Your task to perform on an android device: turn off notifications settings in the gmail app Image 0: 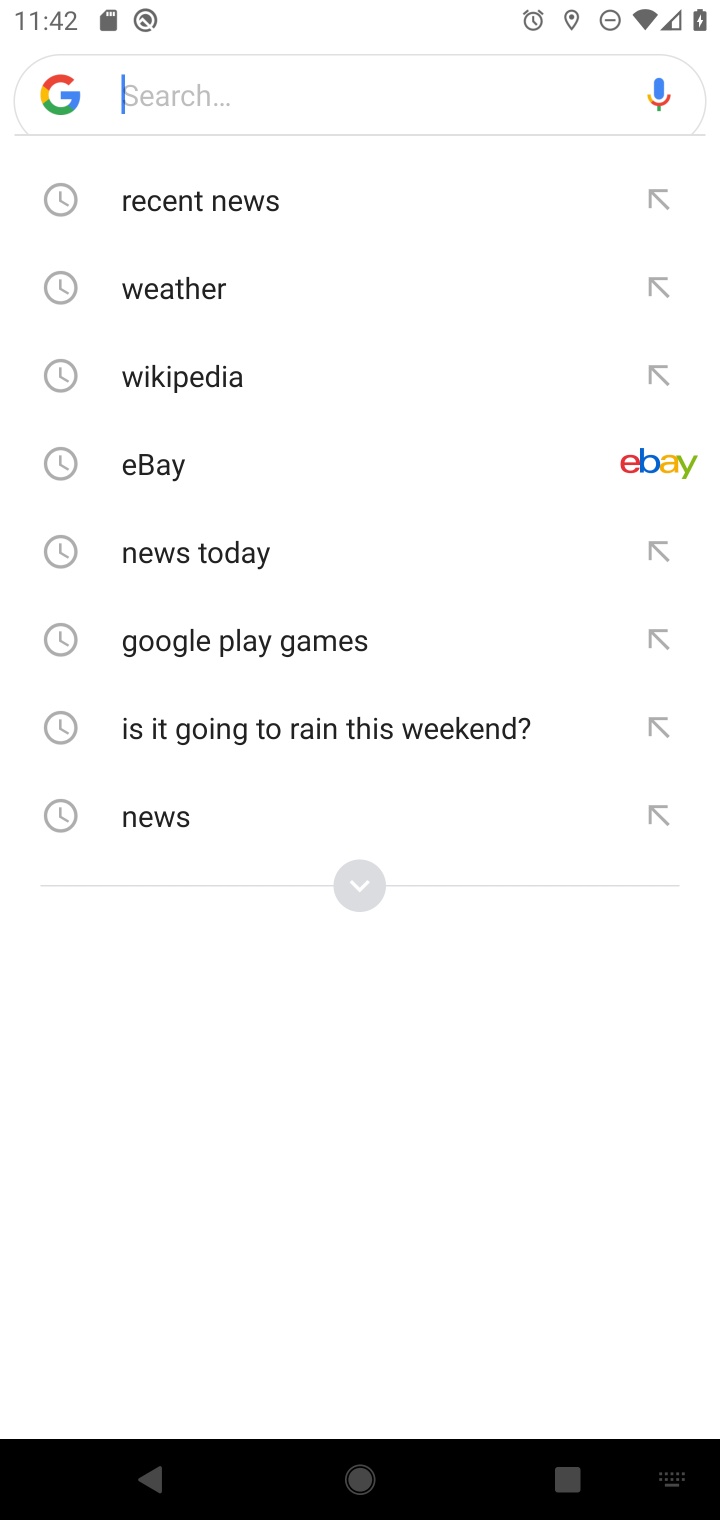
Step 0: press back button
Your task to perform on an android device: turn off notifications settings in the gmail app Image 1: 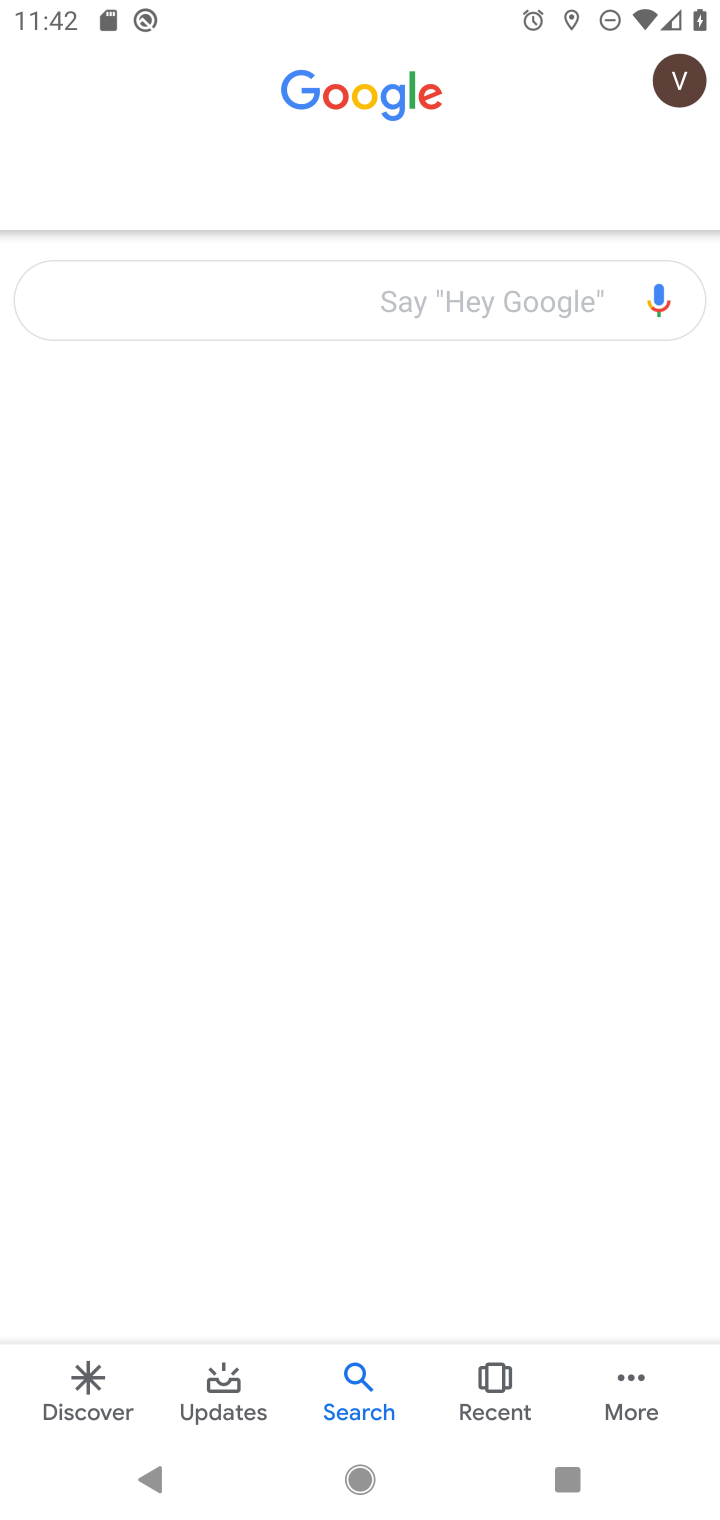
Step 1: press back button
Your task to perform on an android device: turn off notifications settings in the gmail app Image 2: 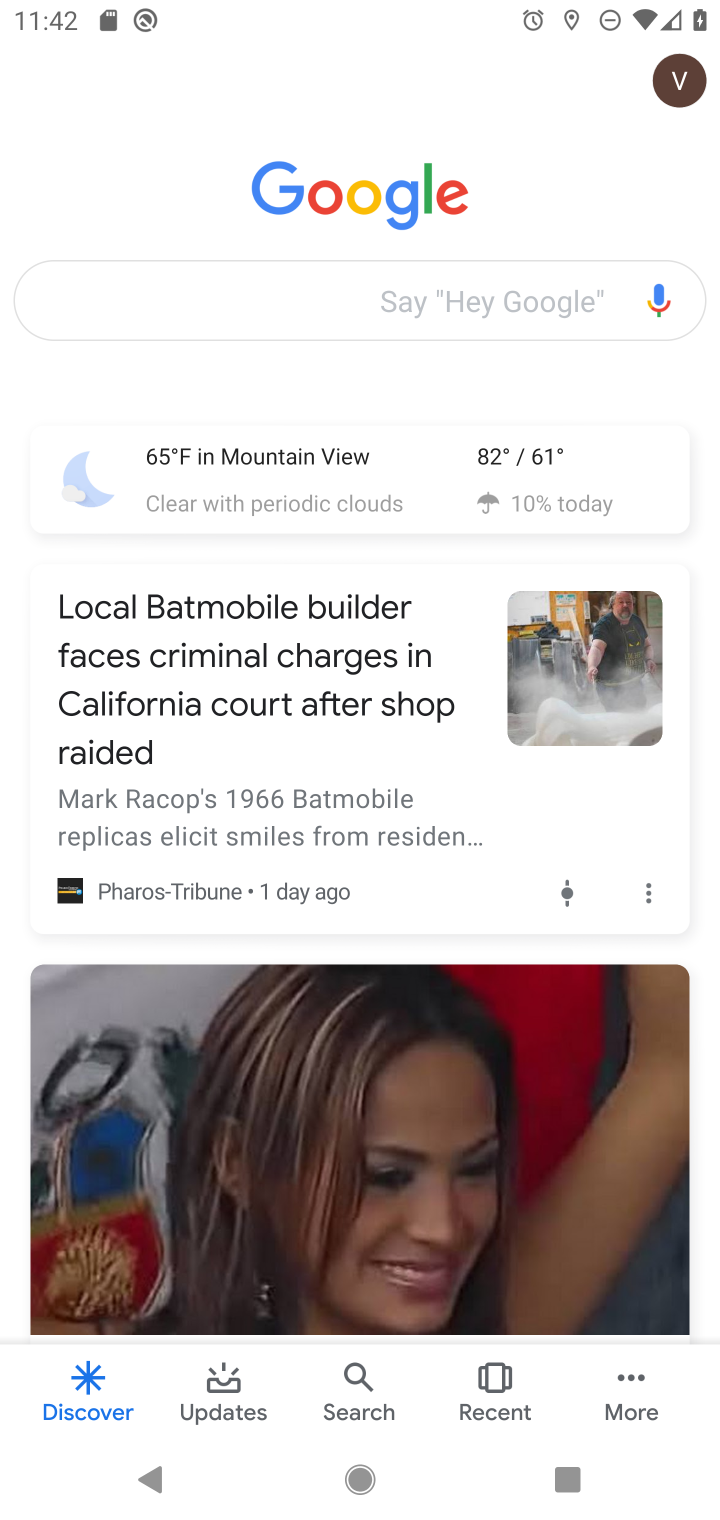
Step 2: press back button
Your task to perform on an android device: turn off notifications settings in the gmail app Image 3: 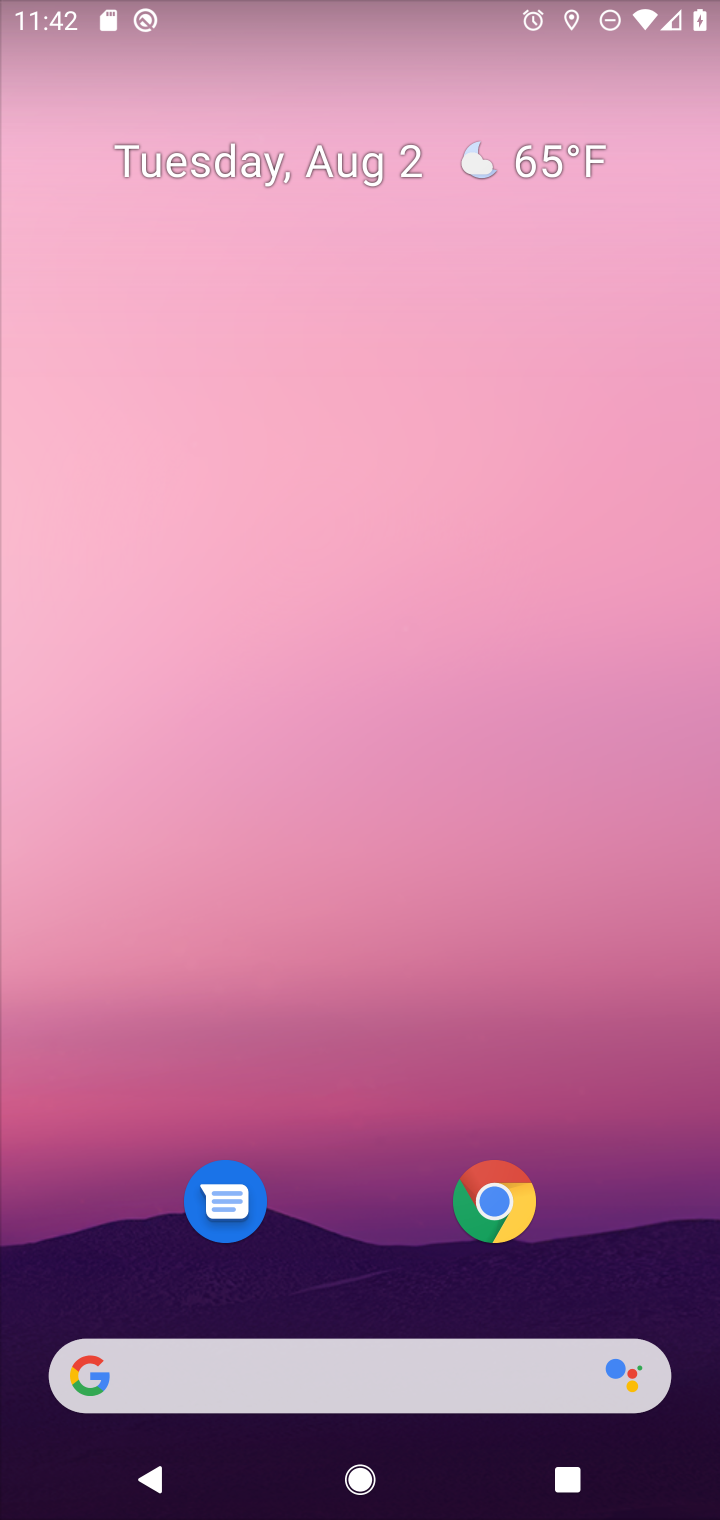
Step 3: drag from (337, 1281) to (360, 81)
Your task to perform on an android device: turn off notifications settings in the gmail app Image 4: 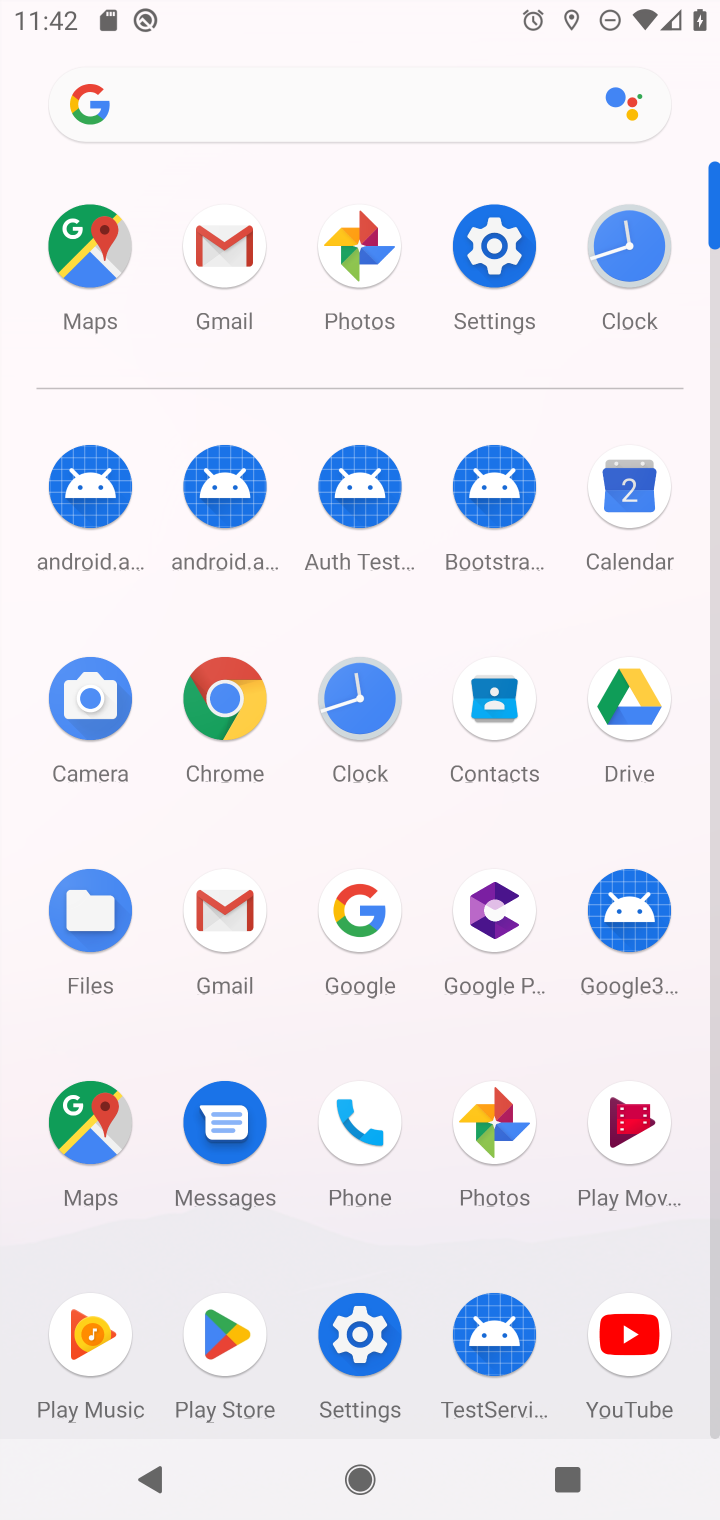
Step 4: click (215, 297)
Your task to perform on an android device: turn off notifications settings in the gmail app Image 5: 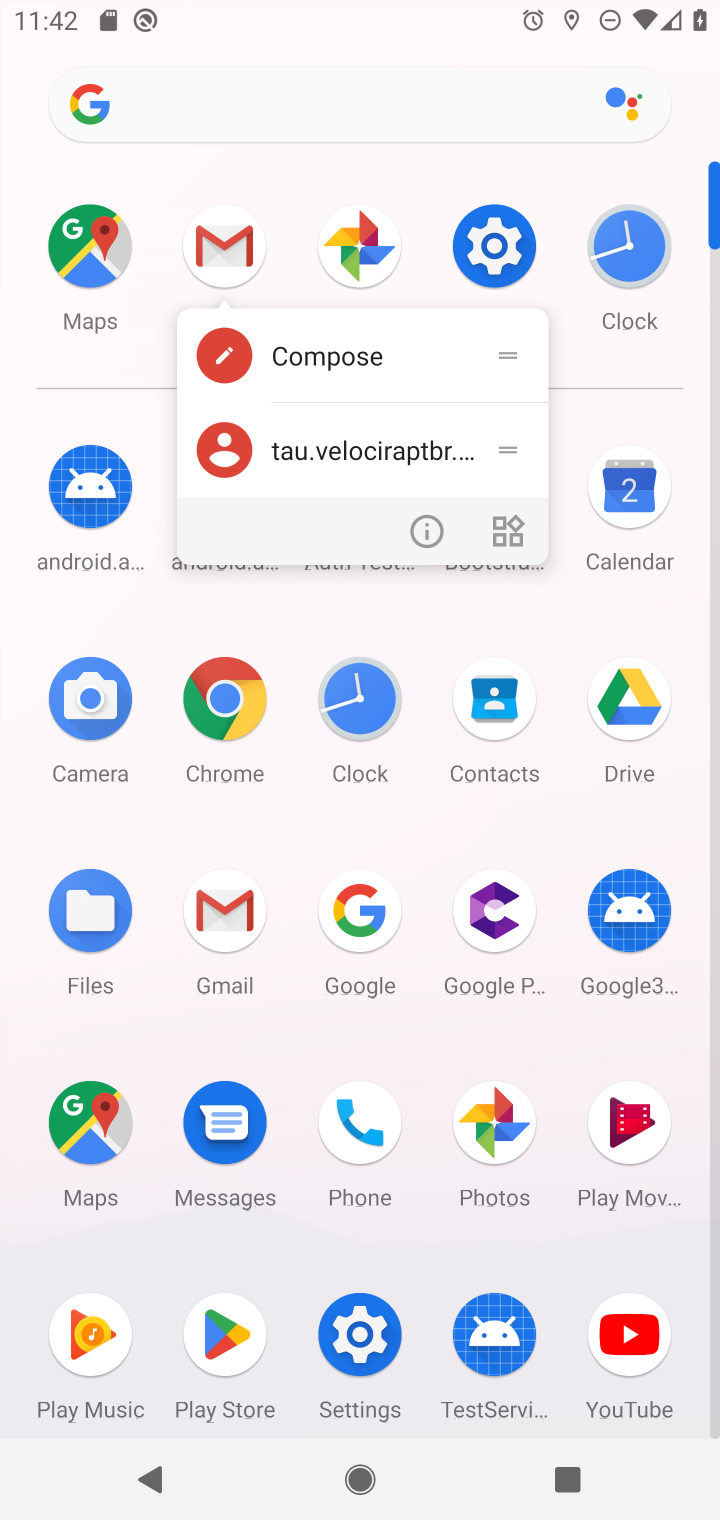
Step 5: click (200, 255)
Your task to perform on an android device: turn off notifications settings in the gmail app Image 6: 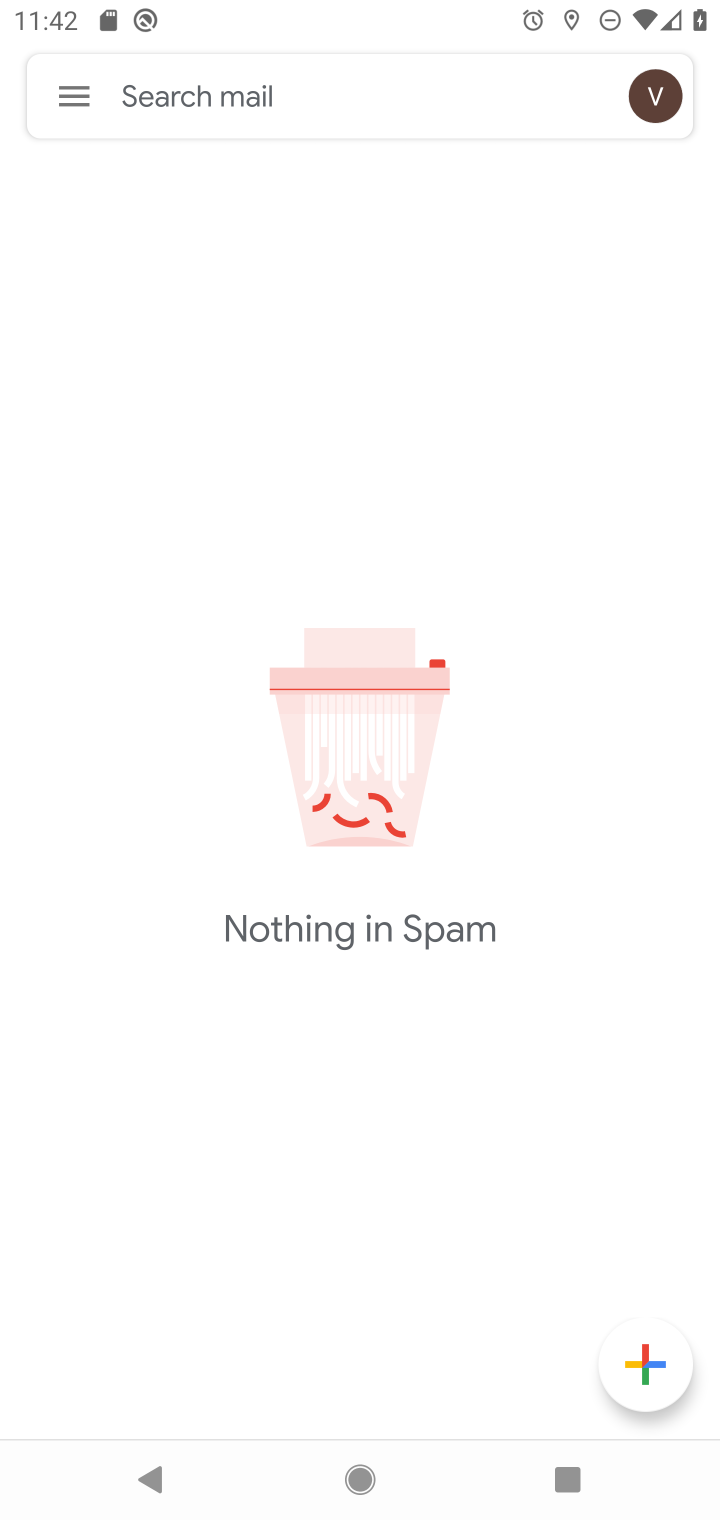
Step 6: click (75, 115)
Your task to perform on an android device: turn off notifications settings in the gmail app Image 7: 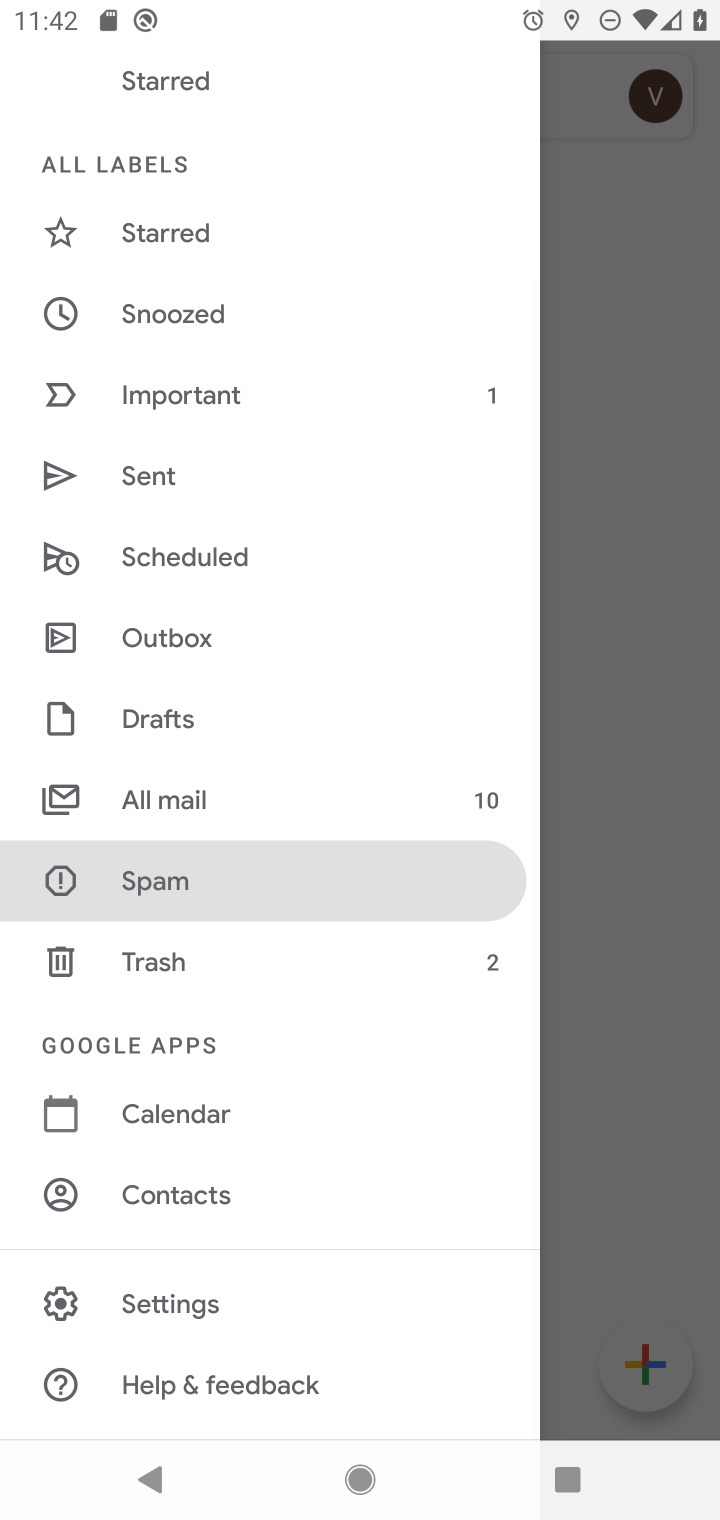
Step 7: click (204, 1283)
Your task to perform on an android device: turn off notifications settings in the gmail app Image 8: 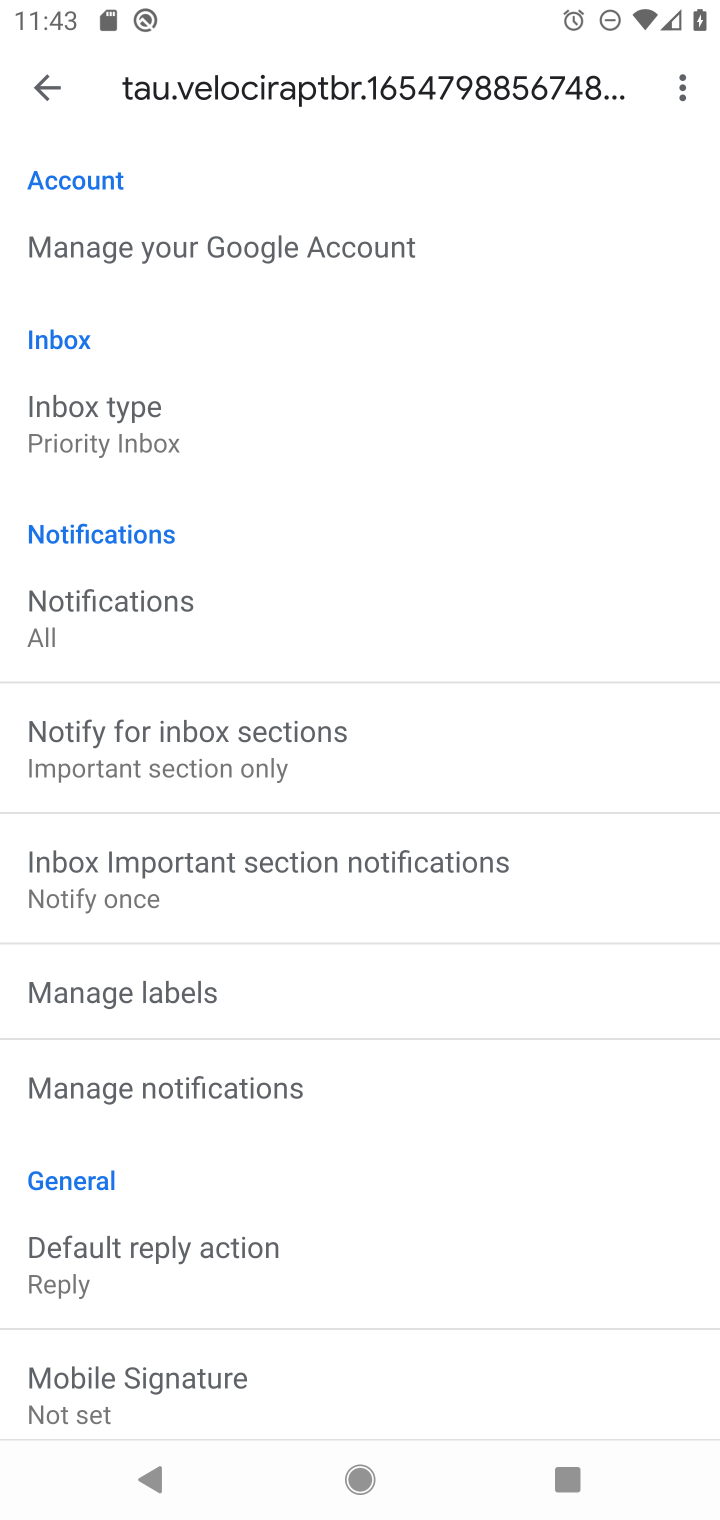
Step 8: click (47, 121)
Your task to perform on an android device: turn off notifications settings in the gmail app Image 9: 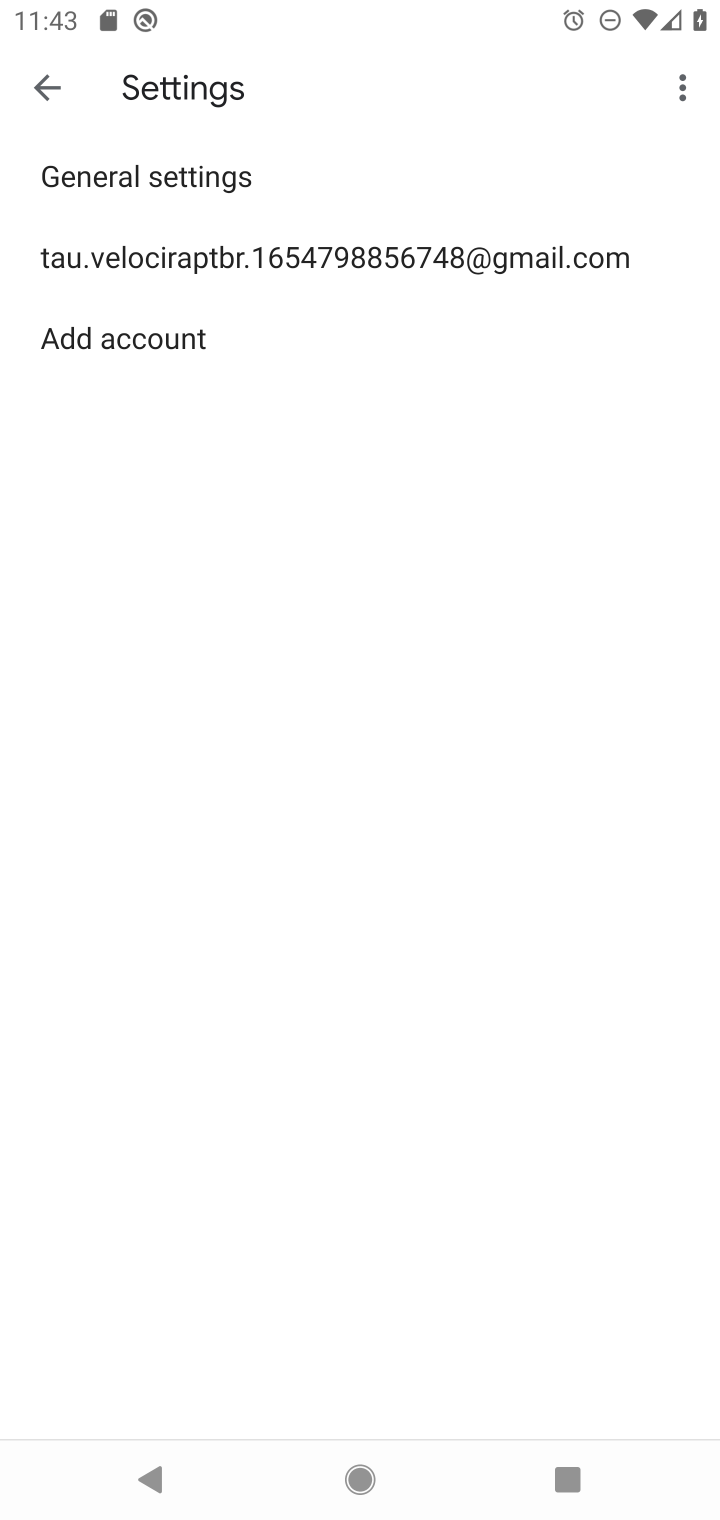
Step 9: click (205, 177)
Your task to perform on an android device: turn off notifications settings in the gmail app Image 10: 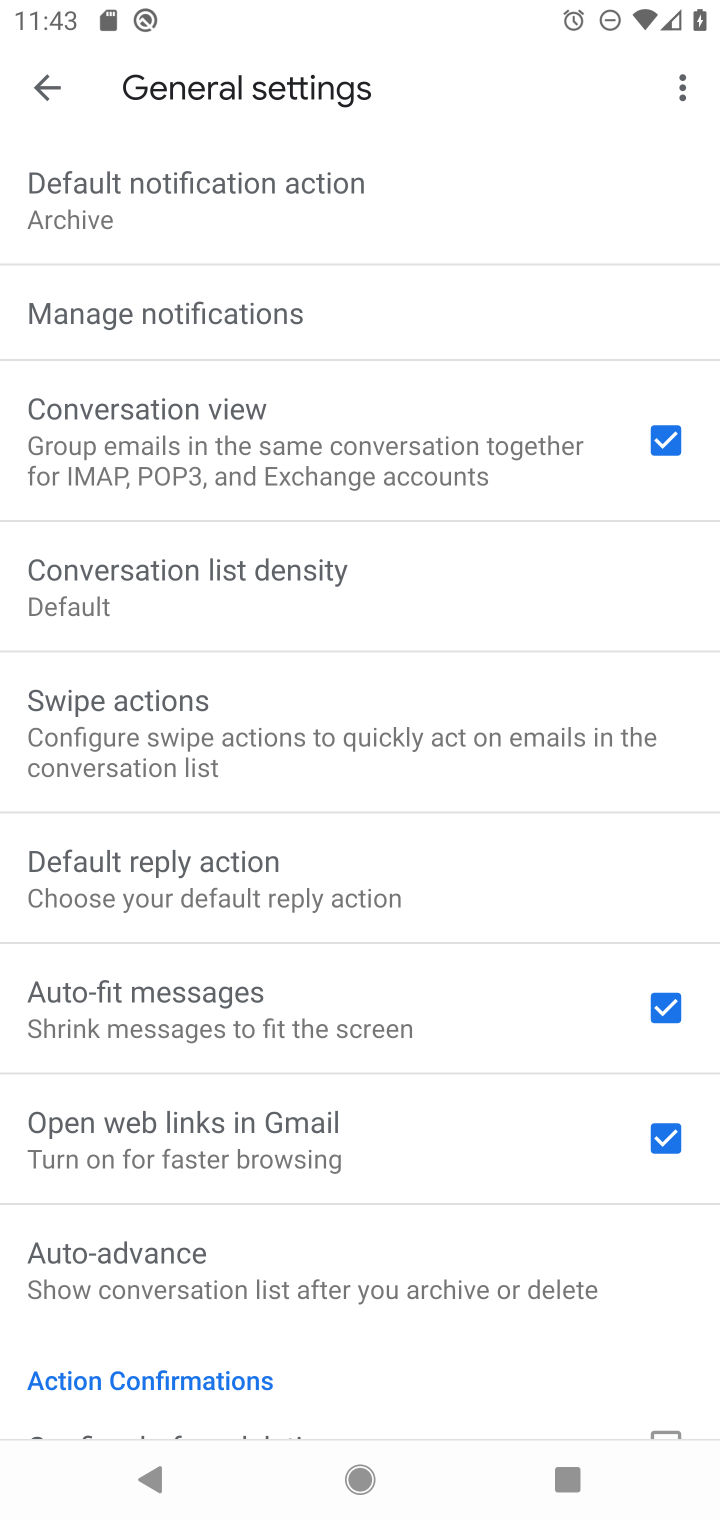
Step 10: click (270, 285)
Your task to perform on an android device: turn off notifications settings in the gmail app Image 11: 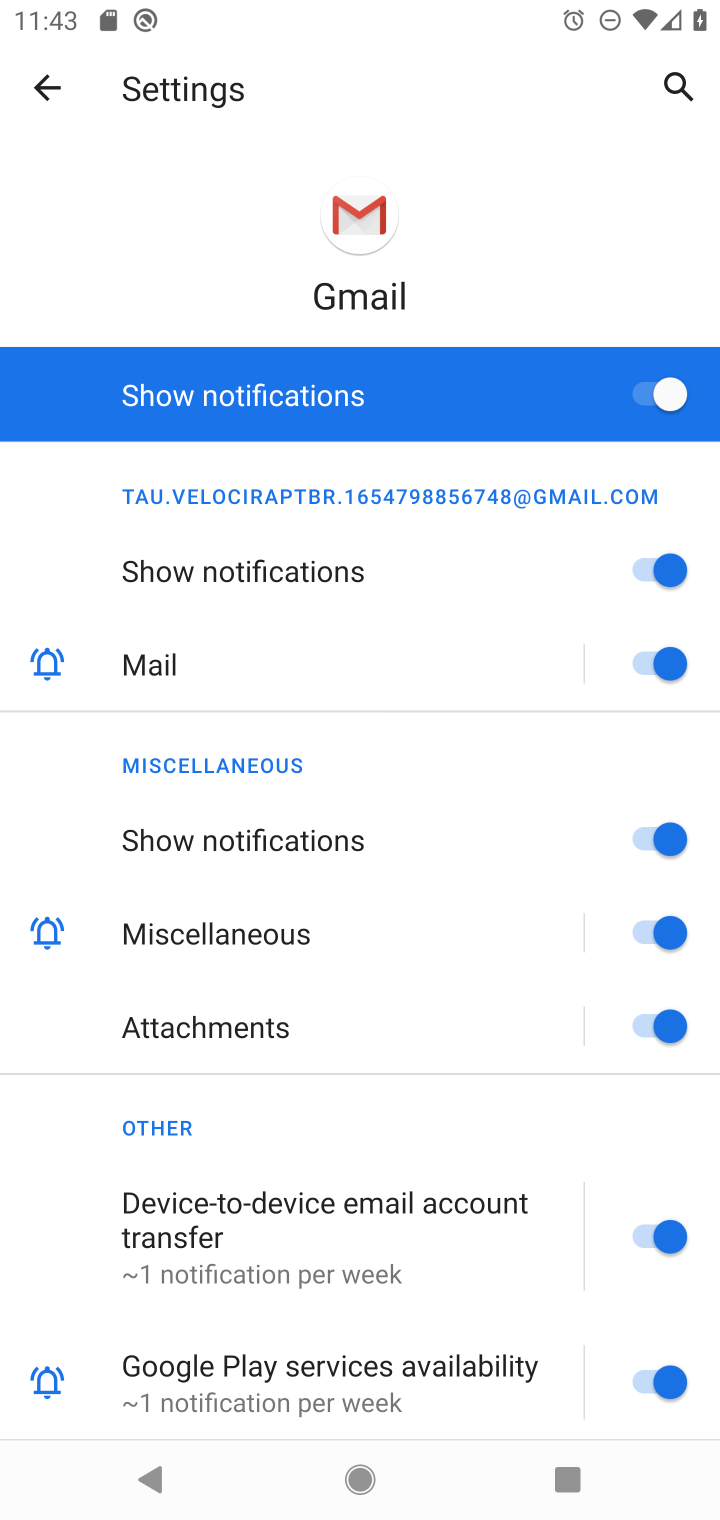
Step 11: click (633, 397)
Your task to perform on an android device: turn off notifications settings in the gmail app Image 12: 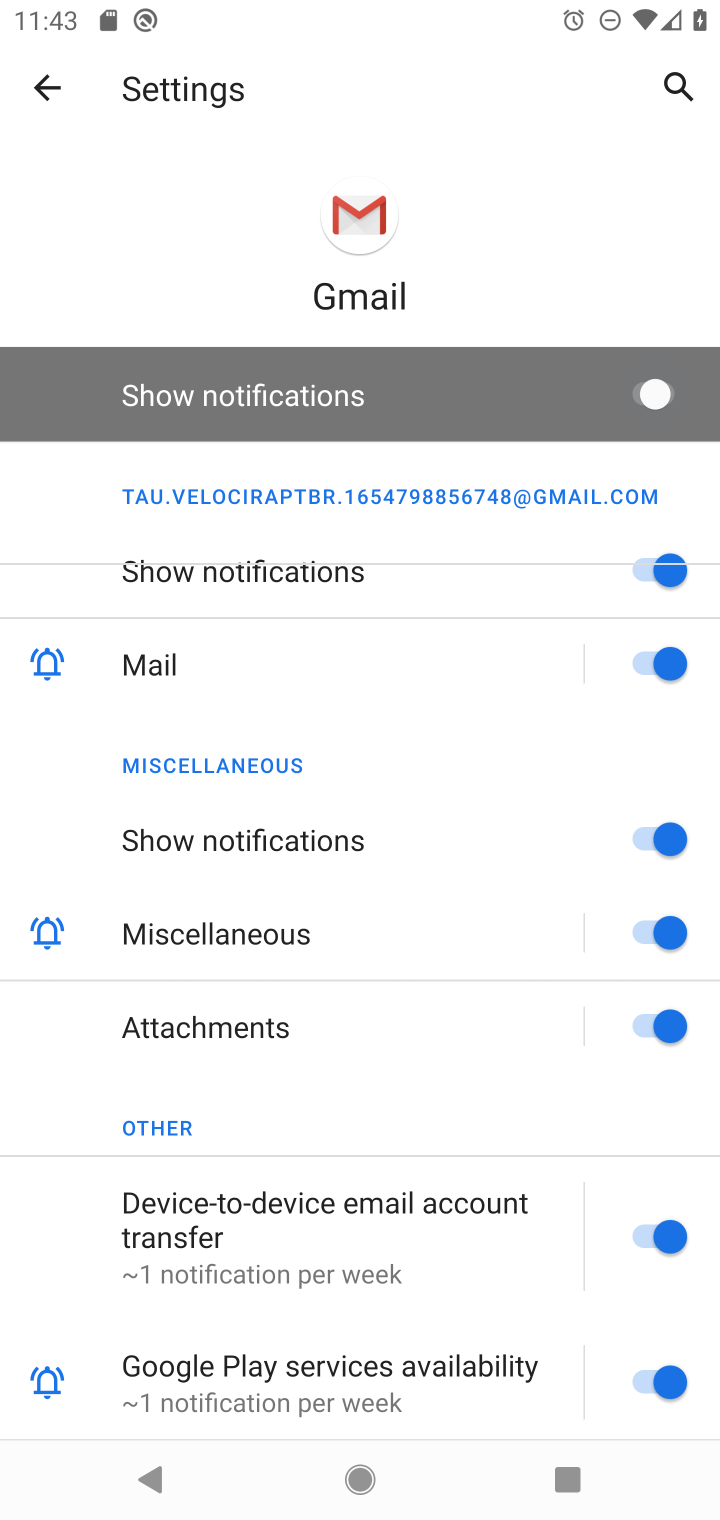
Step 12: task complete